Your task to perform on an android device: make emails show in primary in the gmail app Image 0: 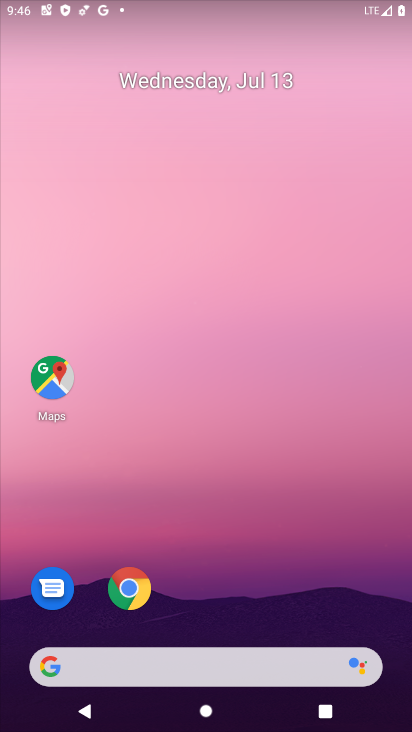
Step 0: drag from (226, 597) to (241, 86)
Your task to perform on an android device: make emails show in primary in the gmail app Image 1: 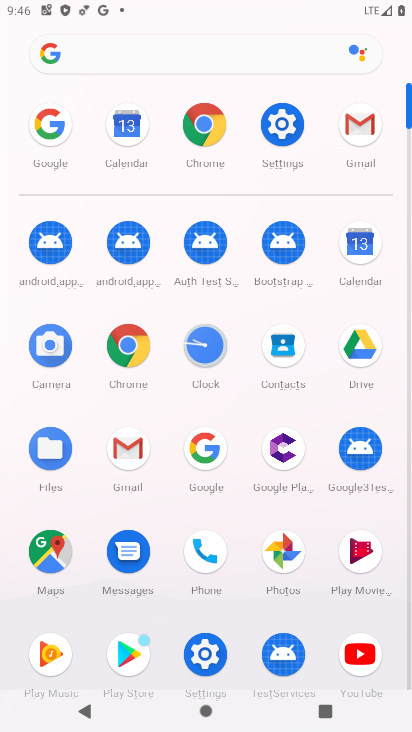
Step 1: click (355, 129)
Your task to perform on an android device: make emails show in primary in the gmail app Image 2: 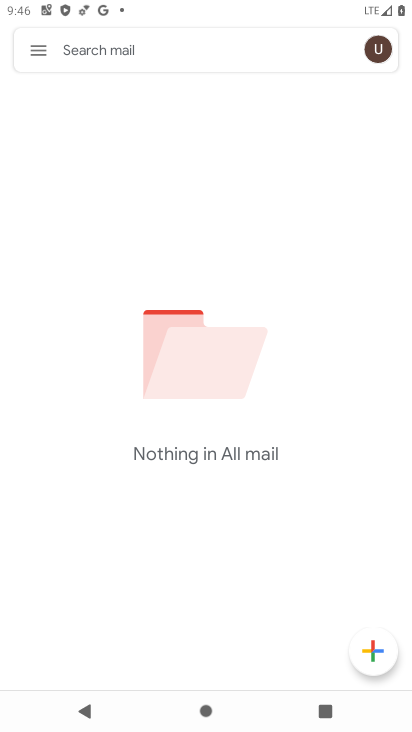
Step 2: click (36, 50)
Your task to perform on an android device: make emails show in primary in the gmail app Image 3: 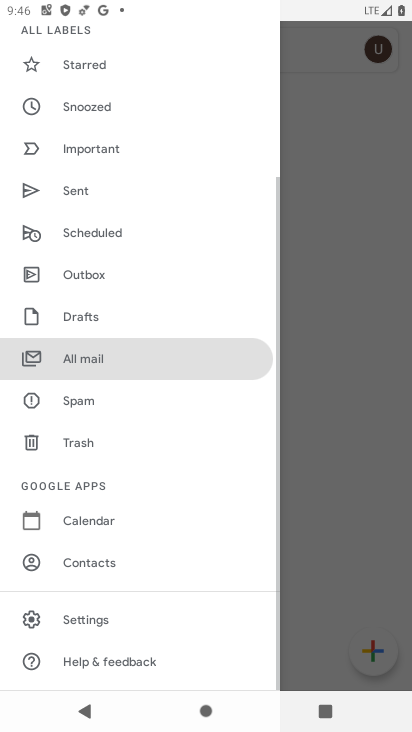
Step 3: click (126, 625)
Your task to perform on an android device: make emails show in primary in the gmail app Image 4: 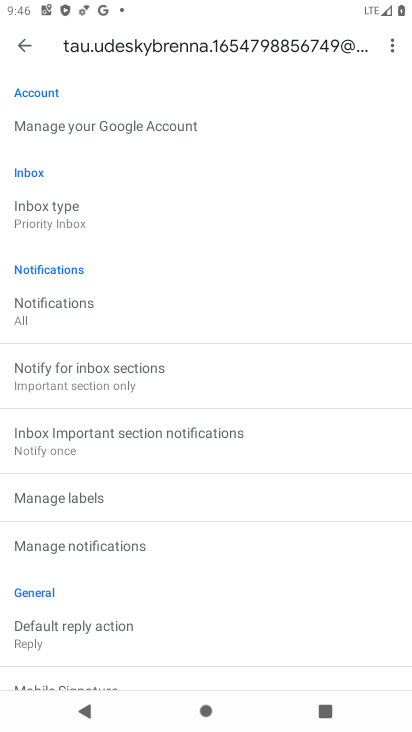
Step 4: click (43, 230)
Your task to perform on an android device: make emails show in primary in the gmail app Image 5: 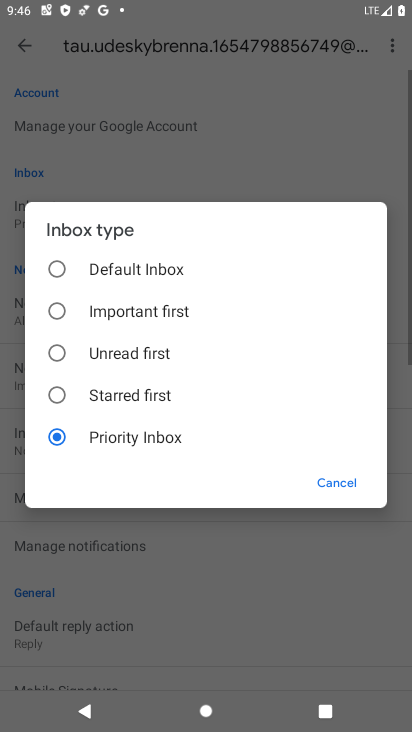
Step 5: click (60, 267)
Your task to perform on an android device: make emails show in primary in the gmail app Image 6: 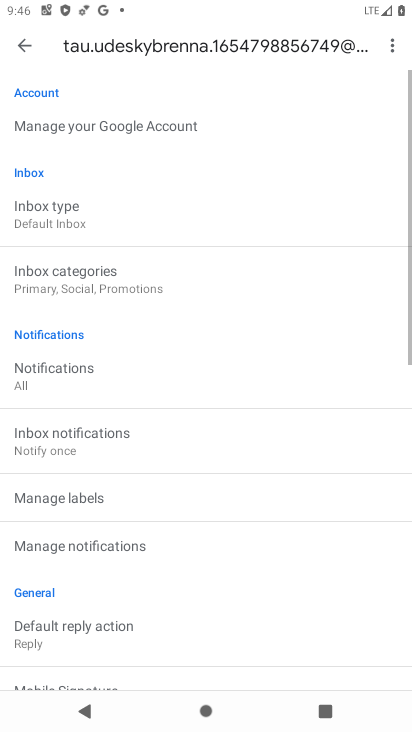
Step 6: click (87, 286)
Your task to perform on an android device: make emails show in primary in the gmail app Image 7: 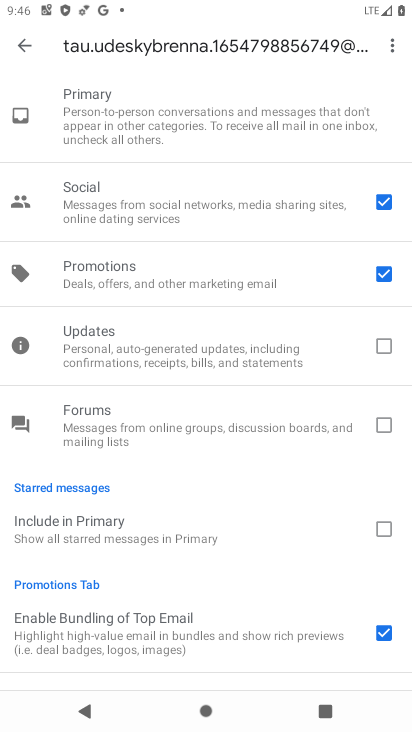
Step 7: click (383, 196)
Your task to perform on an android device: make emails show in primary in the gmail app Image 8: 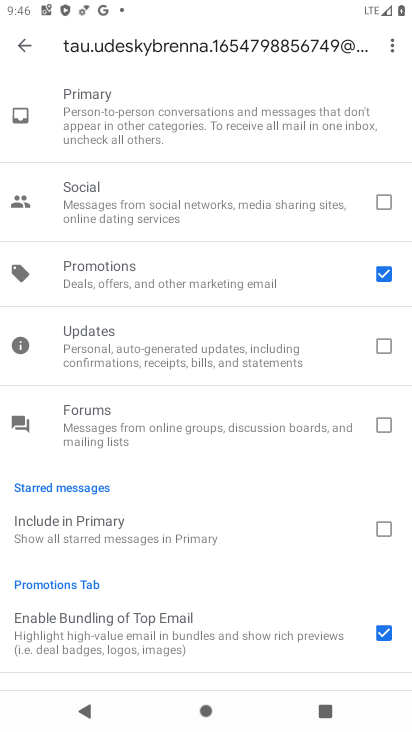
Step 8: click (376, 277)
Your task to perform on an android device: make emails show in primary in the gmail app Image 9: 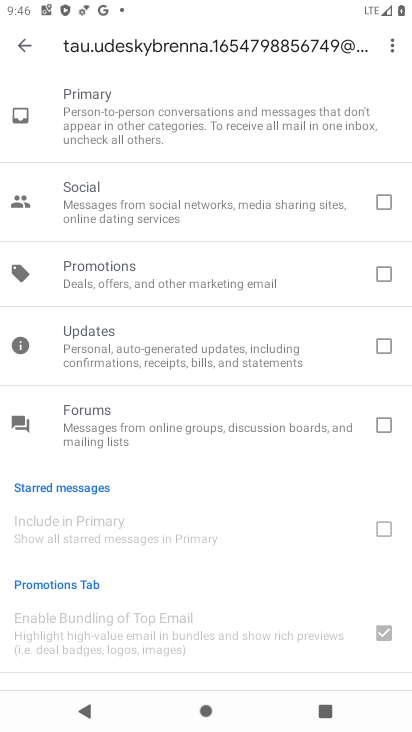
Step 9: task complete